Your task to perform on an android device: Turn off the flashlight Image 0: 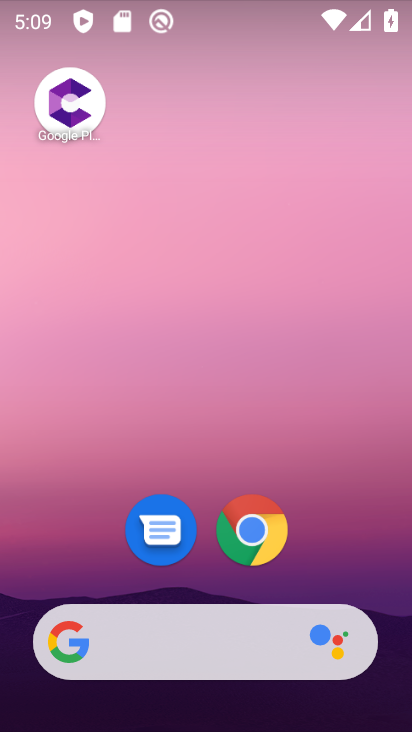
Step 0: drag from (347, 499) to (308, 44)
Your task to perform on an android device: Turn off the flashlight Image 1: 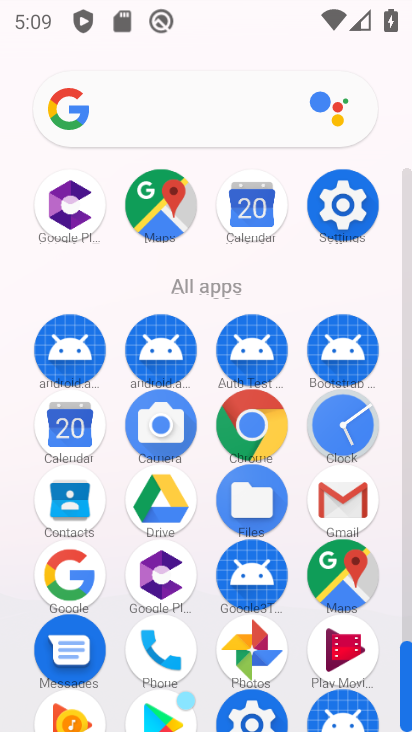
Step 1: click (341, 205)
Your task to perform on an android device: Turn off the flashlight Image 2: 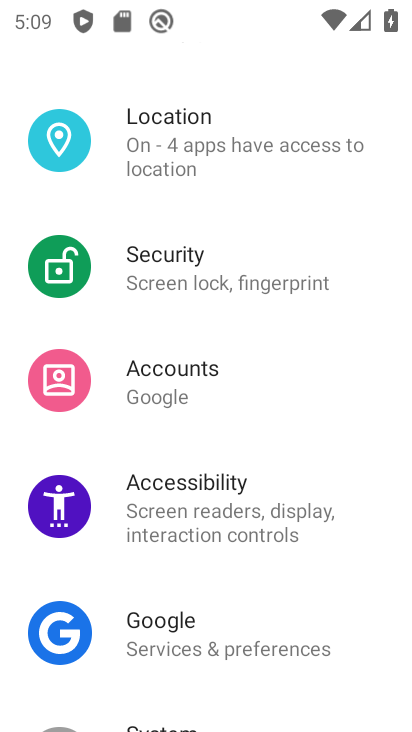
Step 2: drag from (277, 385) to (315, 489)
Your task to perform on an android device: Turn off the flashlight Image 3: 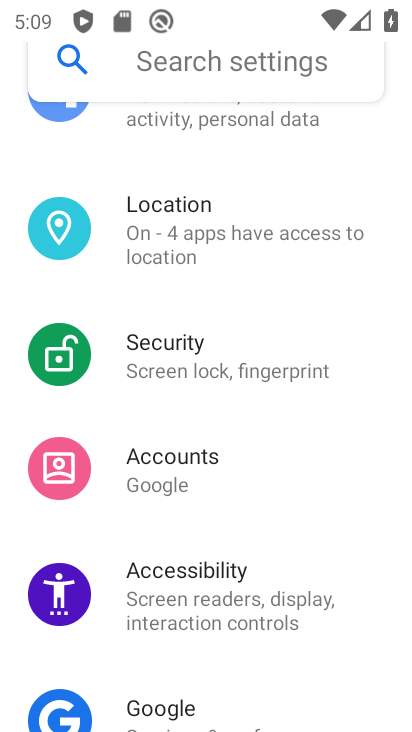
Step 3: drag from (261, 306) to (325, 444)
Your task to perform on an android device: Turn off the flashlight Image 4: 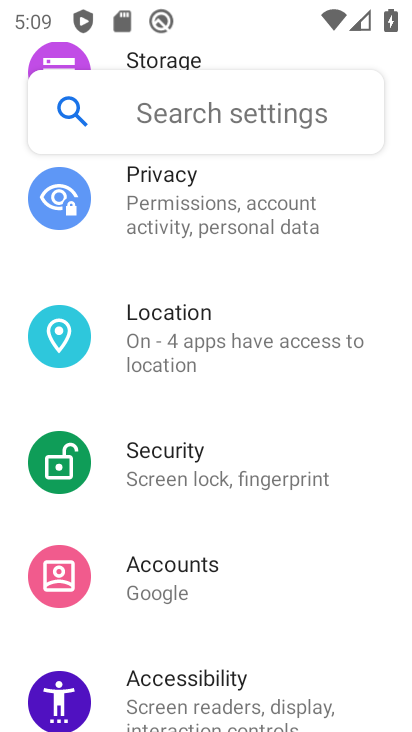
Step 4: drag from (277, 305) to (310, 443)
Your task to perform on an android device: Turn off the flashlight Image 5: 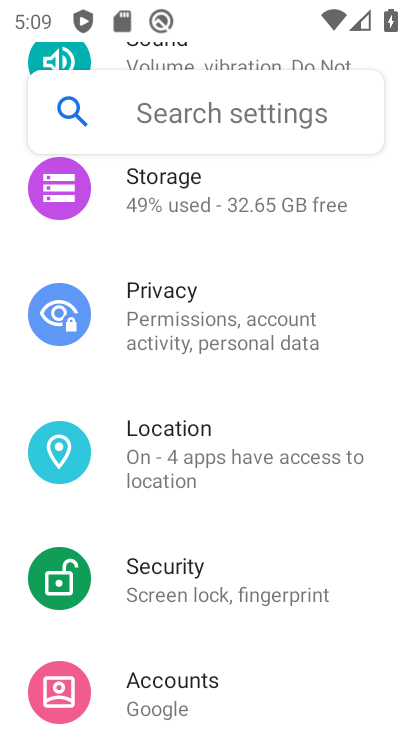
Step 5: drag from (279, 278) to (325, 397)
Your task to perform on an android device: Turn off the flashlight Image 6: 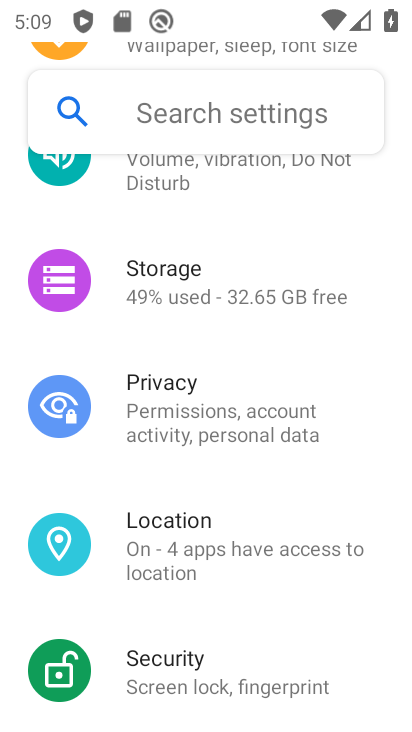
Step 6: drag from (256, 243) to (289, 353)
Your task to perform on an android device: Turn off the flashlight Image 7: 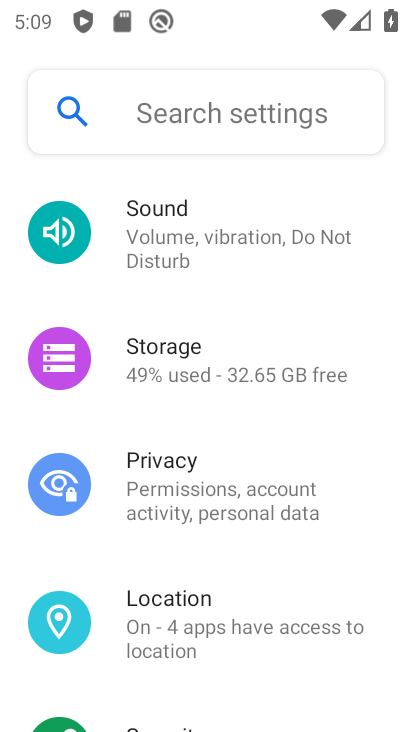
Step 7: drag from (256, 275) to (276, 375)
Your task to perform on an android device: Turn off the flashlight Image 8: 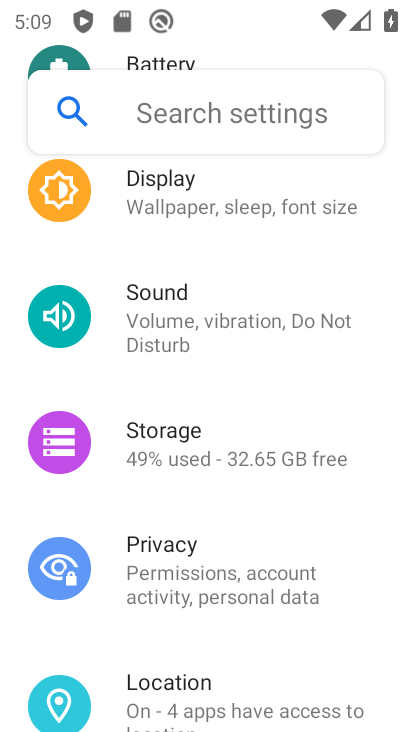
Step 8: drag from (232, 264) to (268, 368)
Your task to perform on an android device: Turn off the flashlight Image 9: 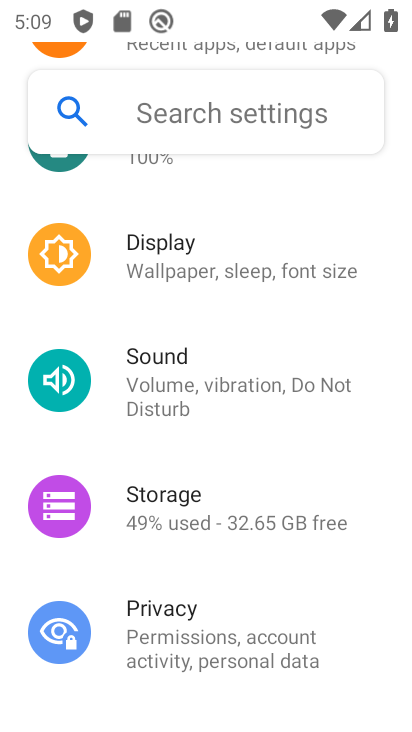
Step 9: drag from (220, 227) to (273, 351)
Your task to perform on an android device: Turn off the flashlight Image 10: 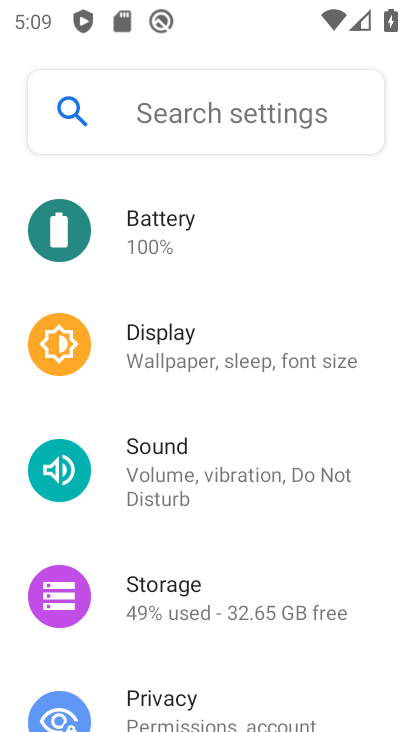
Step 10: drag from (227, 270) to (273, 389)
Your task to perform on an android device: Turn off the flashlight Image 11: 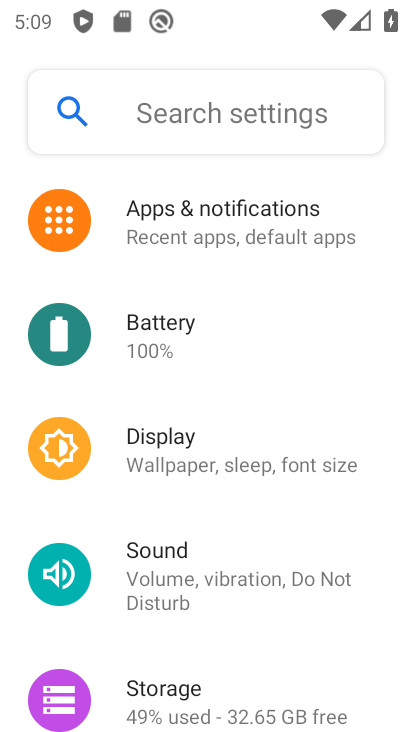
Step 11: drag from (224, 287) to (271, 421)
Your task to perform on an android device: Turn off the flashlight Image 12: 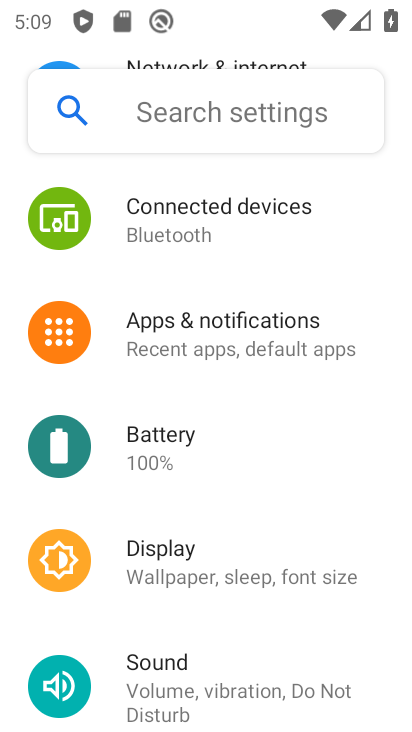
Step 12: drag from (253, 281) to (299, 398)
Your task to perform on an android device: Turn off the flashlight Image 13: 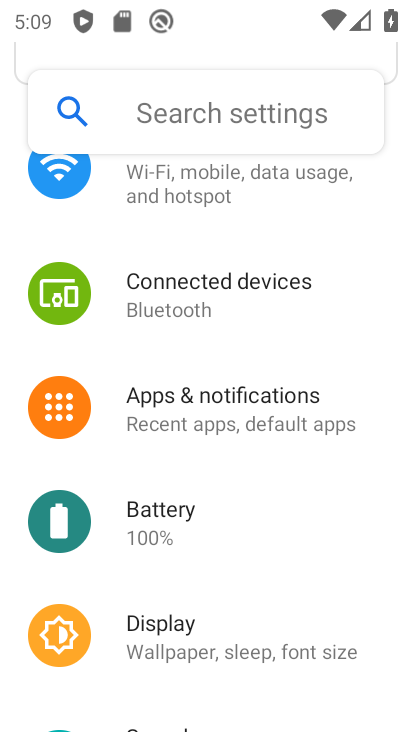
Step 13: drag from (254, 245) to (299, 367)
Your task to perform on an android device: Turn off the flashlight Image 14: 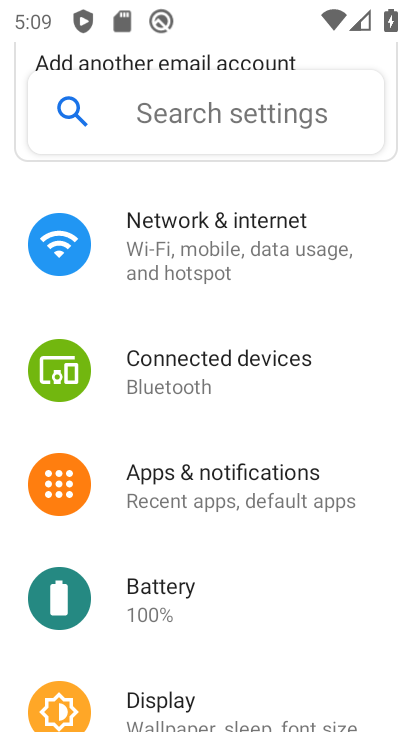
Step 14: drag from (159, 552) to (249, 347)
Your task to perform on an android device: Turn off the flashlight Image 15: 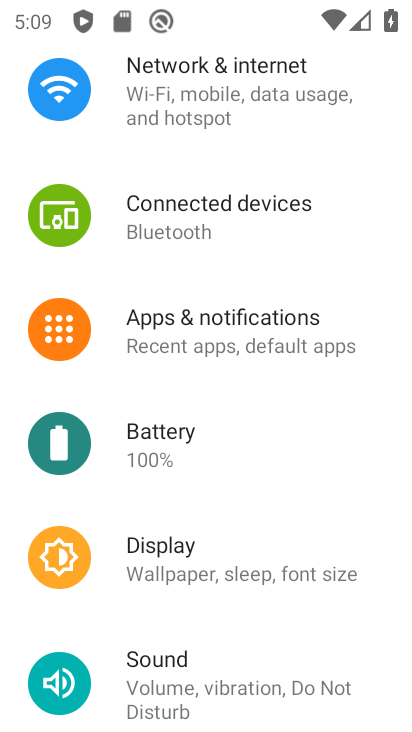
Step 15: click (257, 397)
Your task to perform on an android device: Turn off the flashlight Image 16: 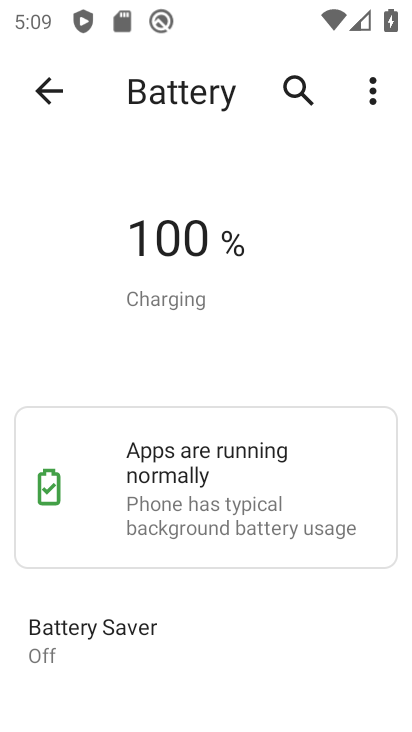
Step 16: press back button
Your task to perform on an android device: Turn off the flashlight Image 17: 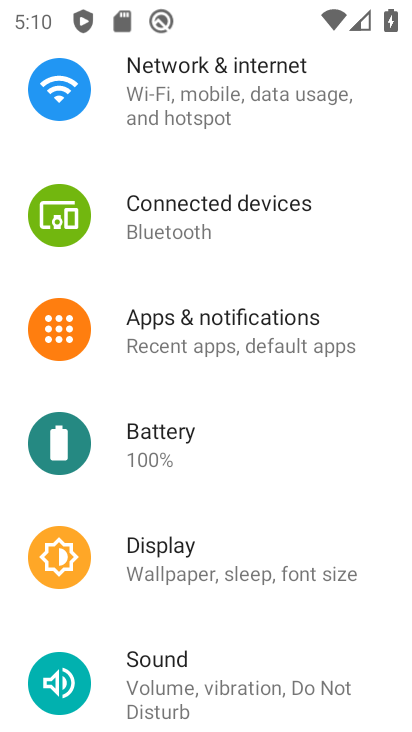
Step 17: drag from (213, 603) to (297, 433)
Your task to perform on an android device: Turn off the flashlight Image 18: 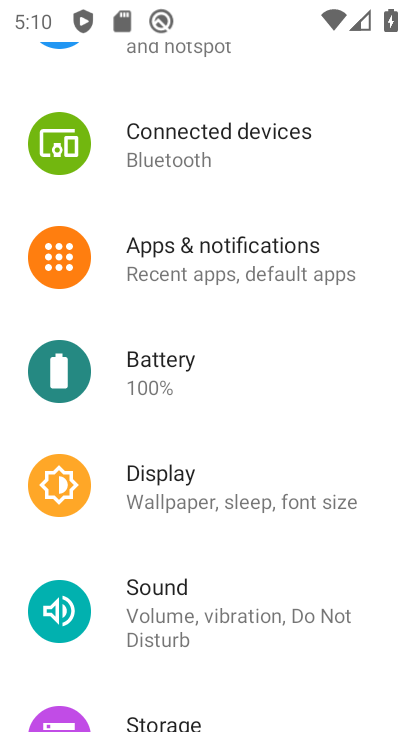
Step 18: drag from (220, 556) to (286, 381)
Your task to perform on an android device: Turn off the flashlight Image 19: 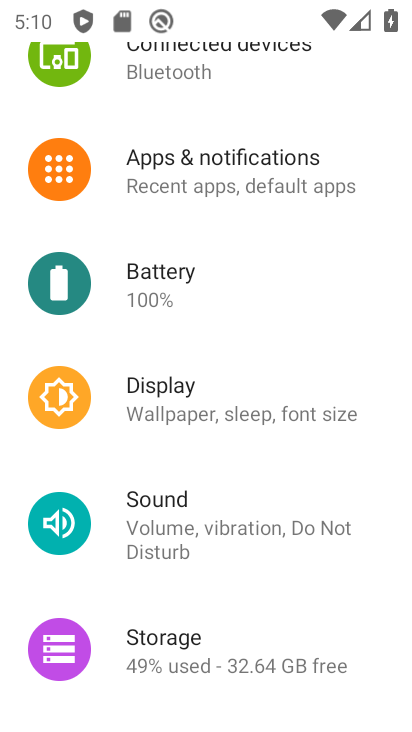
Step 19: drag from (195, 593) to (260, 416)
Your task to perform on an android device: Turn off the flashlight Image 20: 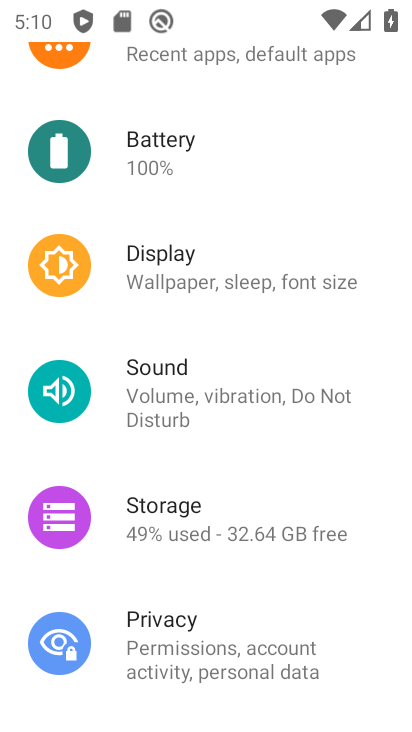
Step 20: drag from (260, 593) to (292, 468)
Your task to perform on an android device: Turn off the flashlight Image 21: 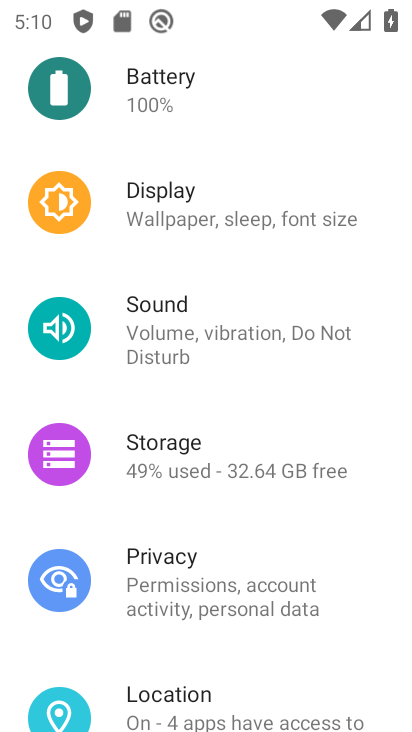
Step 21: drag from (182, 654) to (231, 446)
Your task to perform on an android device: Turn off the flashlight Image 22: 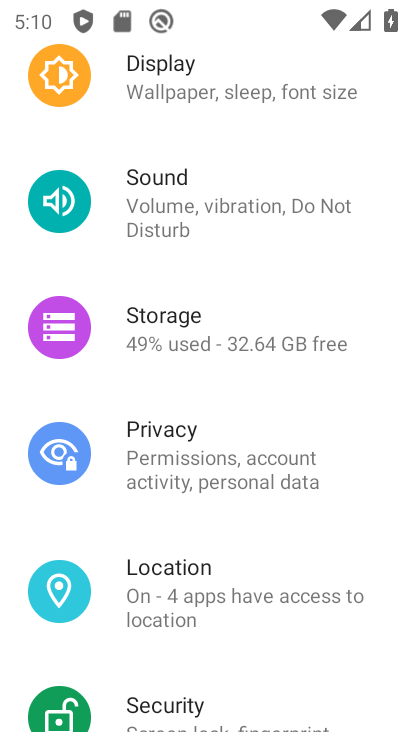
Step 22: click (276, 106)
Your task to perform on an android device: Turn off the flashlight Image 23: 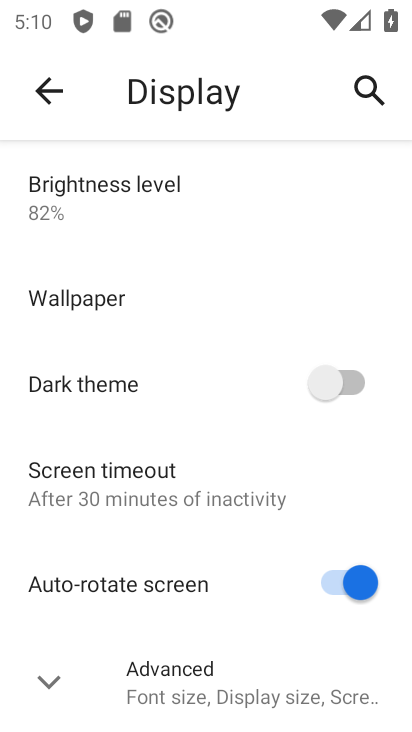
Step 23: drag from (181, 578) to (253, 370)
Your task to perform on an android device: Turn off the flashlight Image 24: 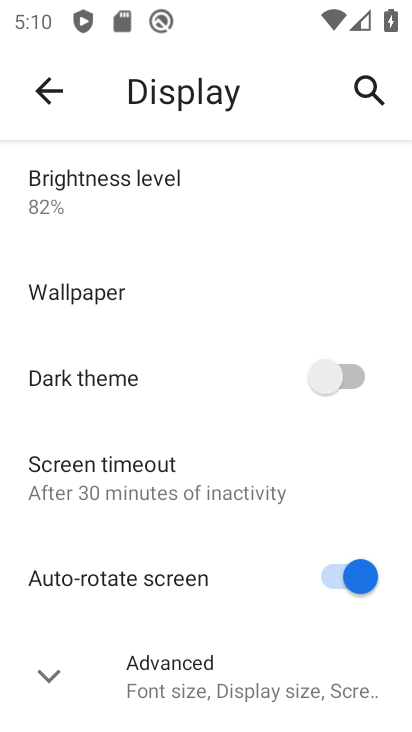
Step 24: click (152, 671)
Your task to perform on an android device: Turn off the flashlight Image 25: 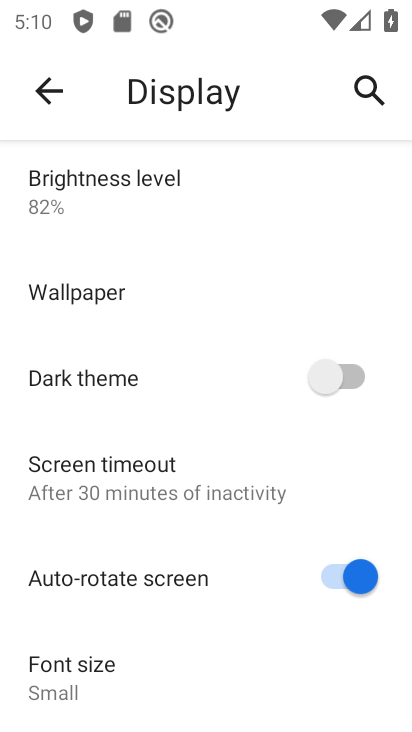
Step 25: task complete